Your task to perform on an android device: open app "Google Pay: Save, Pay, Manage" (install if not already installed) Image 0: 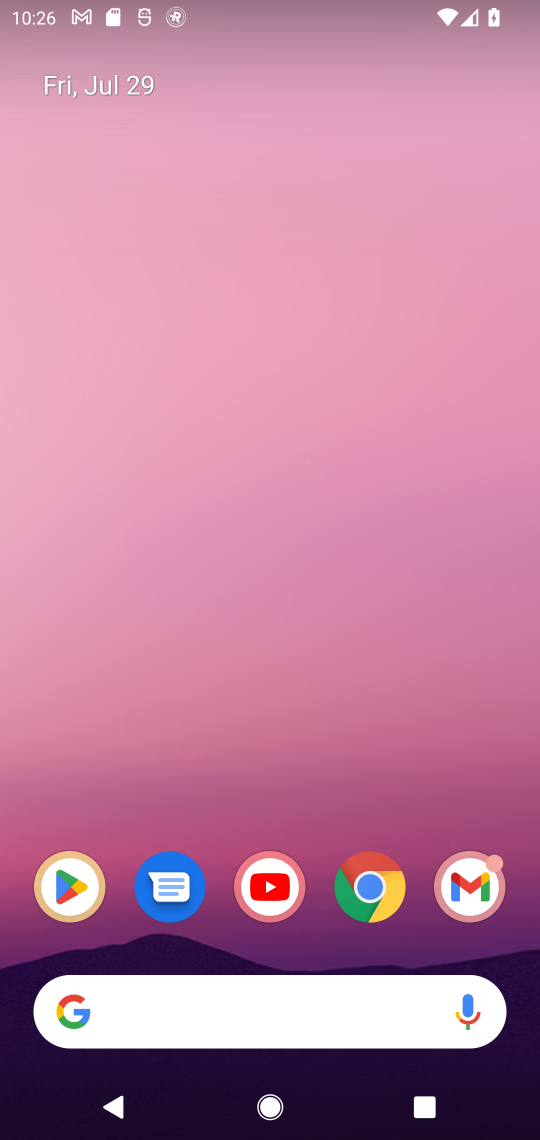
Step 0: click (86, 891)
Your task to perform on an android device: open app "Google Pay: Save, Pay, Manage" (install if not already installed) Image 1: 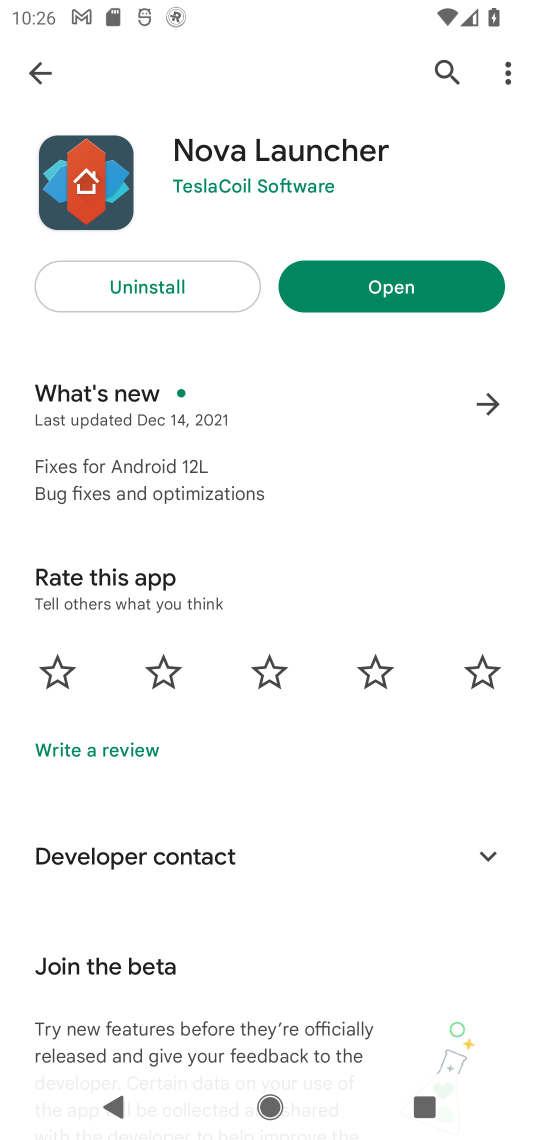
Step 1: click (449, 68)
Your task to perform on an android device: open app "Google Pay: Save, Pay, Manage" (install if not already installed) Image 2: 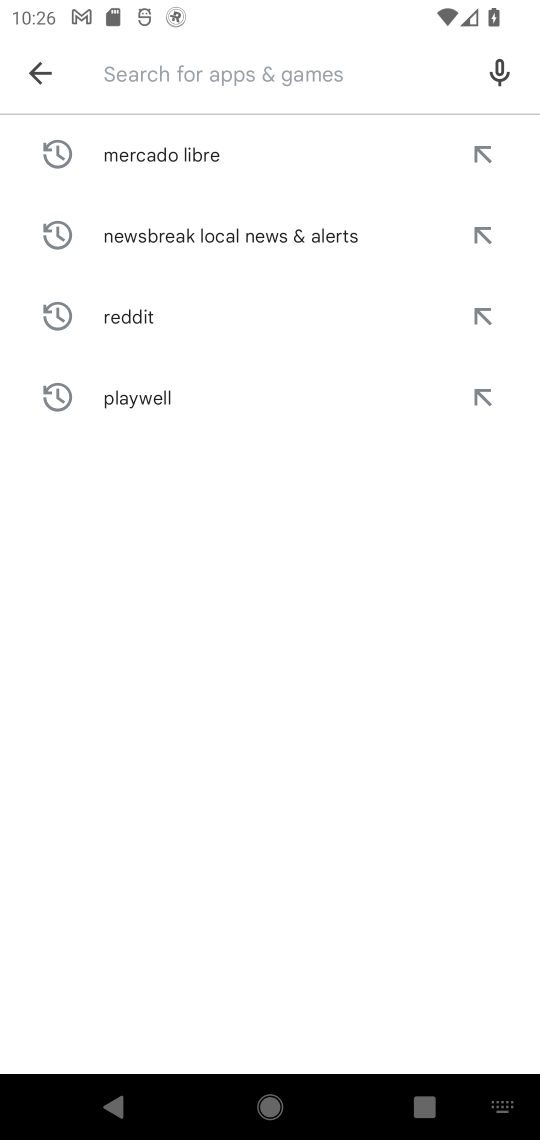
Step 2: type "google pay: save, pay, manage"
Your task to perform on an android device: open app "Google Pay: Save, Pay, Manage" (install if not already installed) Image 3: 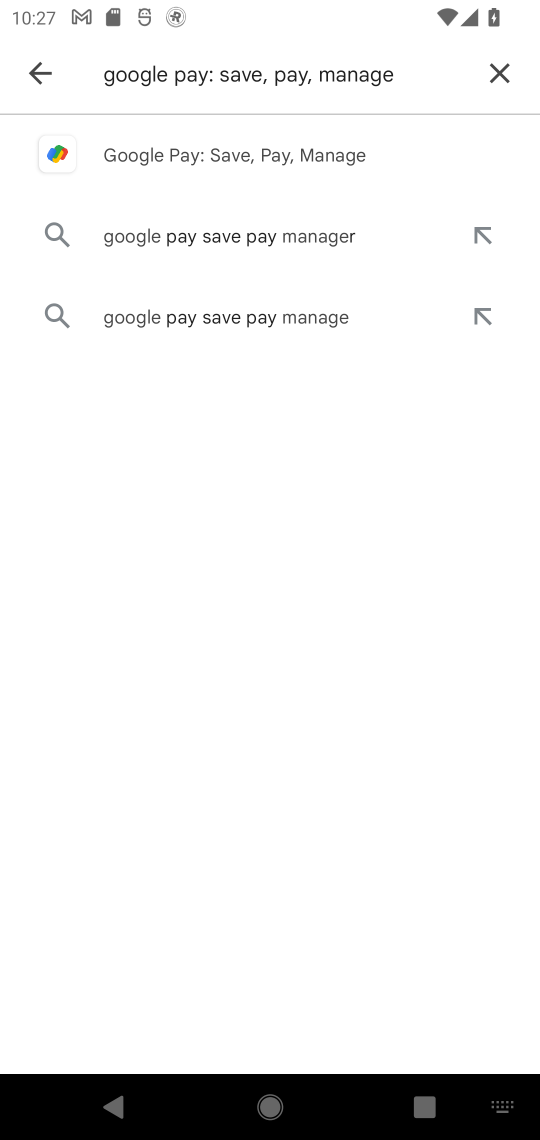
Step 3: click (362, 133)
Your task to perform on an android device: open app "Google Pay: Save, Pay, Manage" (install if not already installed) Image 4: 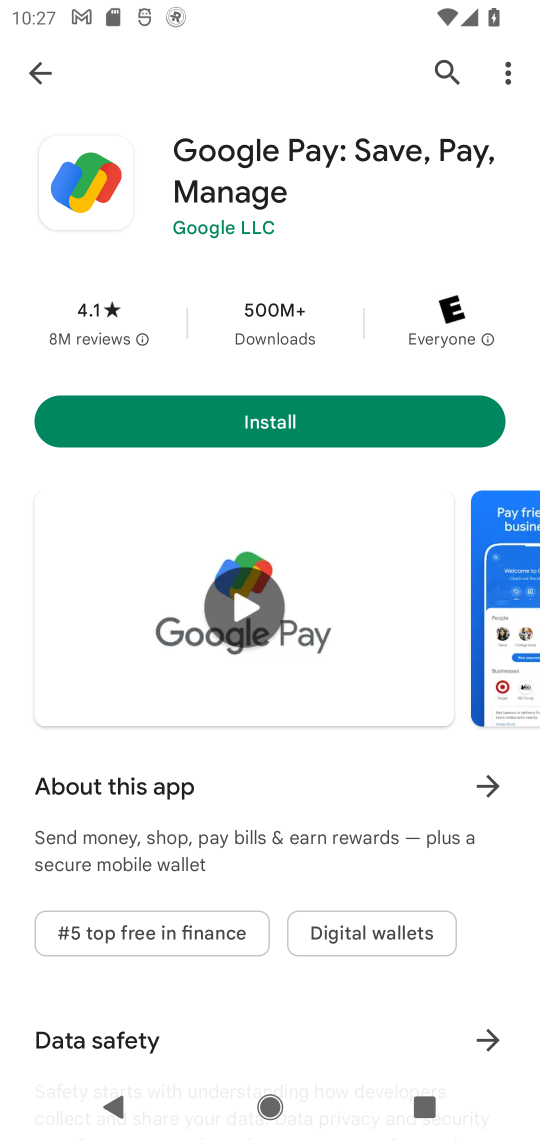
Step 4: click (226, 407)
Your task to perform on an android device: open app "Google Pay: Save, Pay, Manage" (install if not already installed) Image 5: 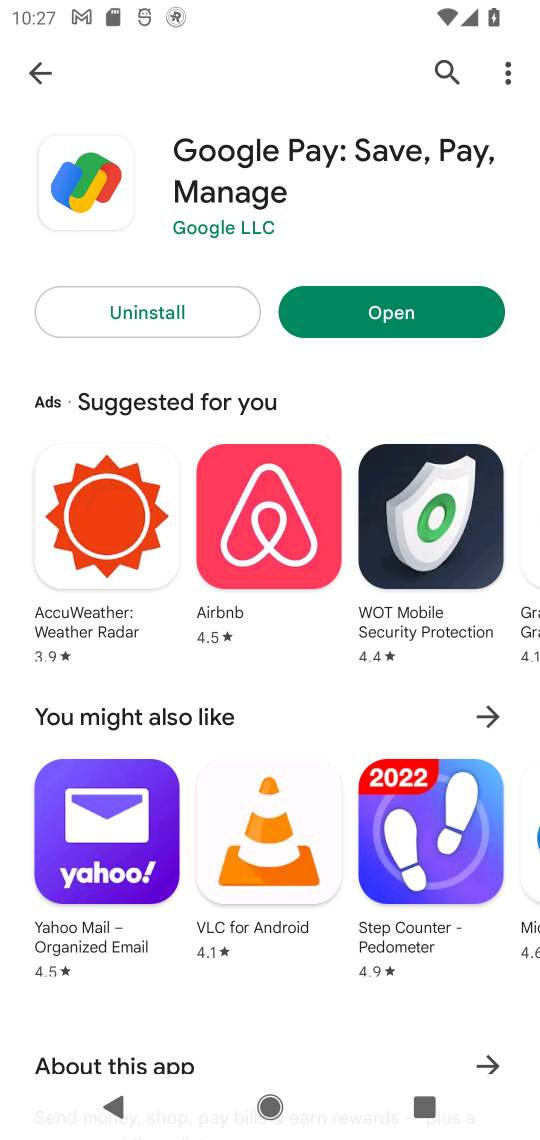
Step 5: click (397, 303)
Your task to perform on an android device: open app "Google Pay: Save, Pay, Manage" (install if not already installed) Image 6: 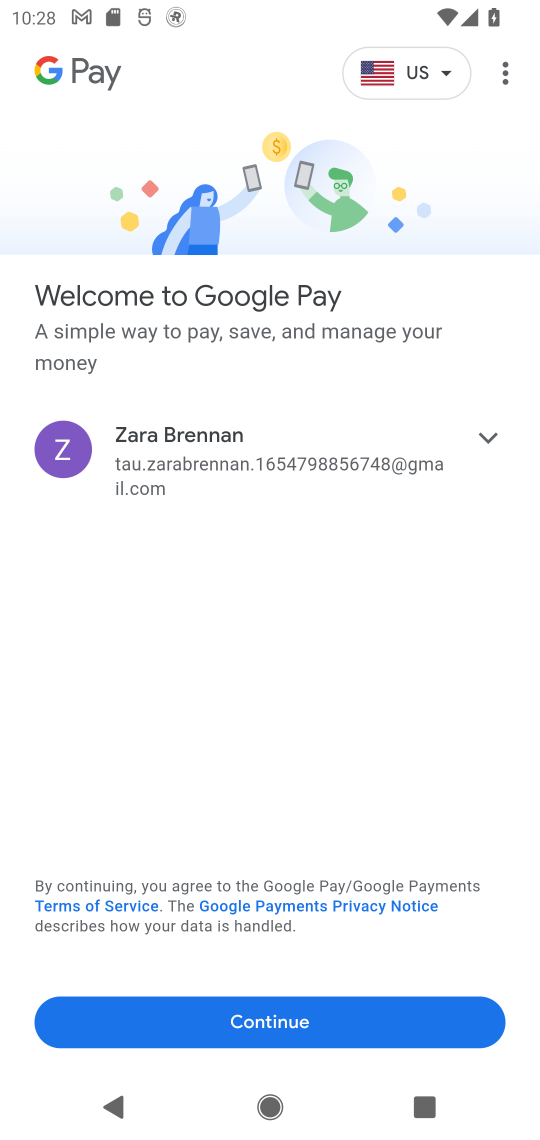
Step 6: task complete